Your task to perform on an android device: Go to Yahoo.com Image 0: 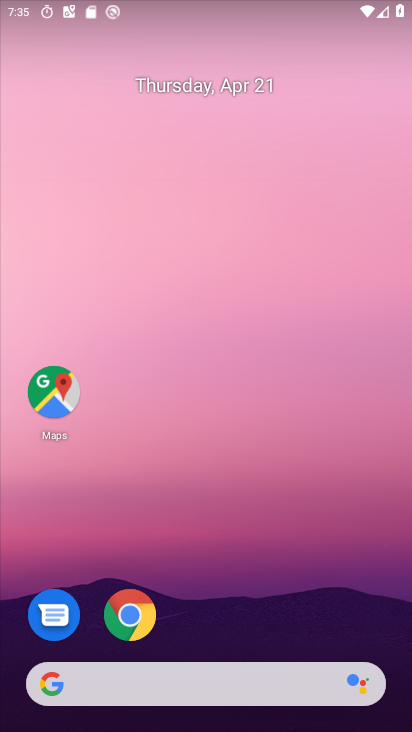
Step 0: drag from (198, 675) to (408, 41)
Your task to perform on an android device: Go to Yahoo.com Image 1: 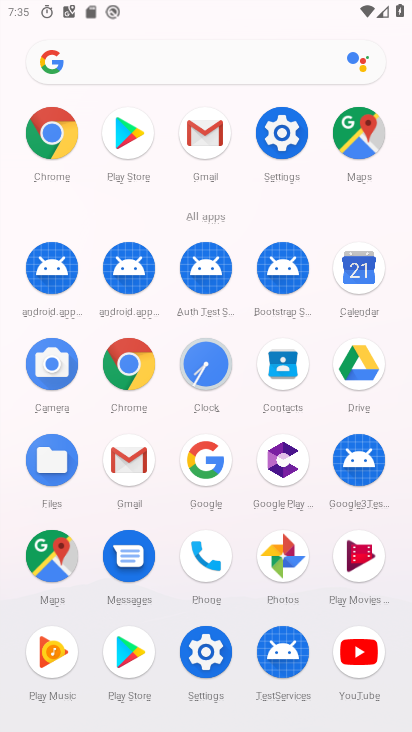
Step 1: click (60, 138)
Your task to perform on an android device: Go to Yahoo.com Image 2: 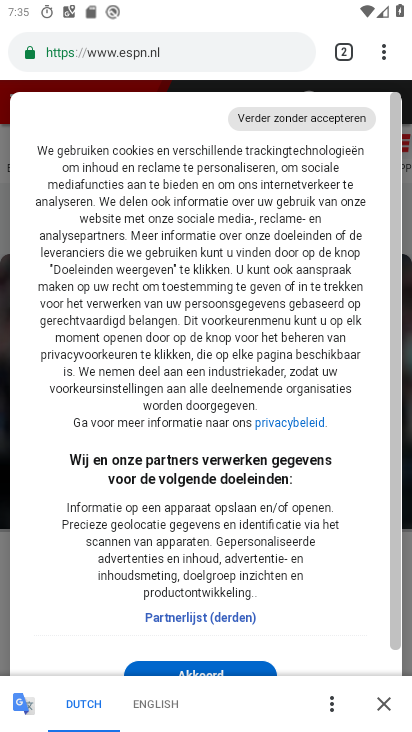
Step 2: click (378, 52)
Your task to perform on an android device: Go to Yahoo.com Image 3: 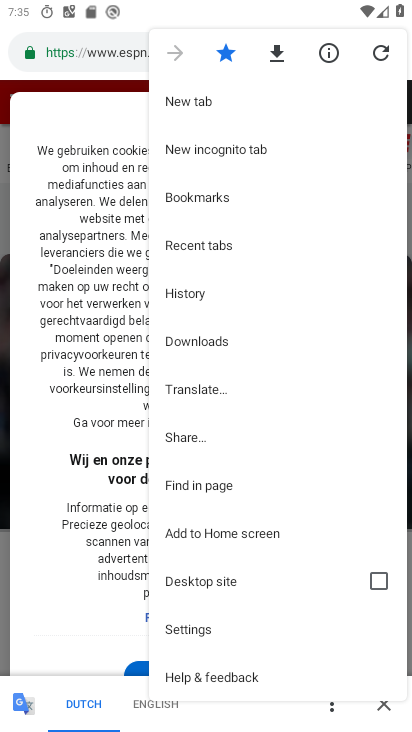
Step 3: click (192, 98)
Your task to perform on an android device: Go to Yahoo.com Image 4: 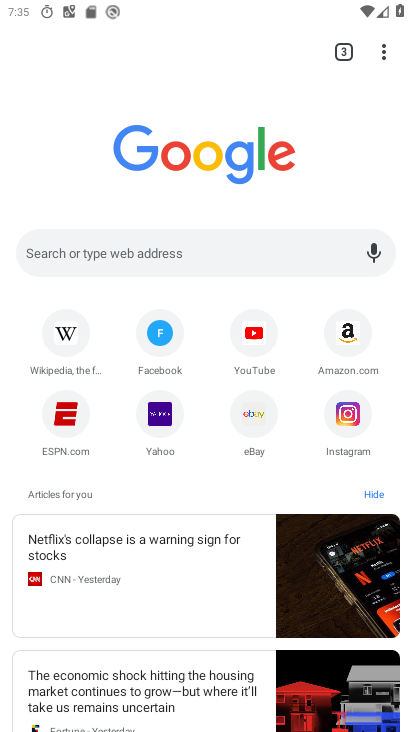
Step 4: click (155, 420)
Your task to perform on an android device: Go to Yahoo.com Image 5: 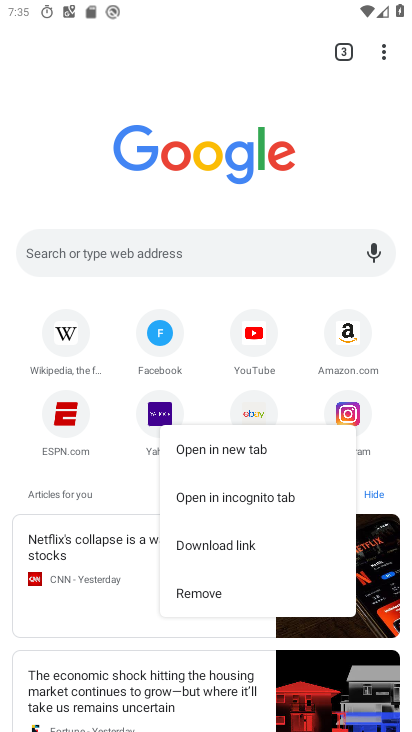
Step 5: click (160, 418)
Your task to perform on an android device: Go to Yahoo.com Image 6: 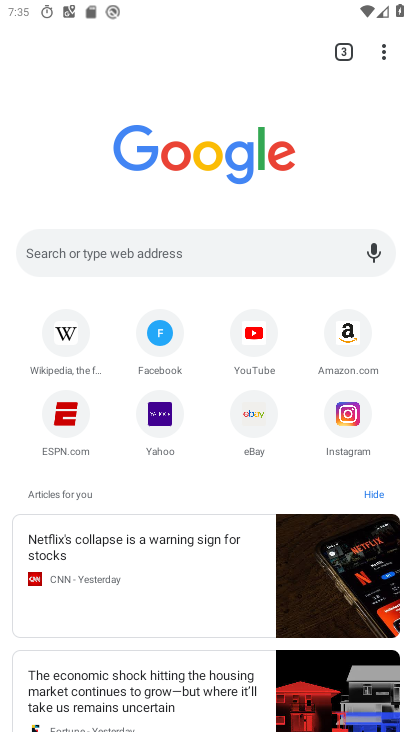
Step 6: click (162, 419)
Your task to perform on an android device: Go to Yahoo.com Image 7: 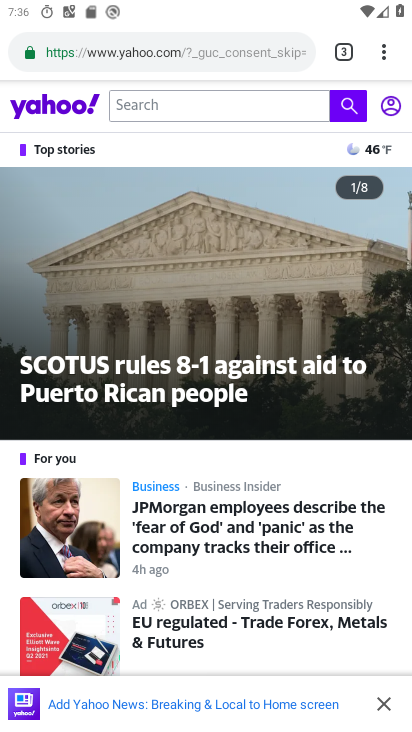
Step 7: task complete